Your task to perform on an android device: Go to sound settings Image 0: 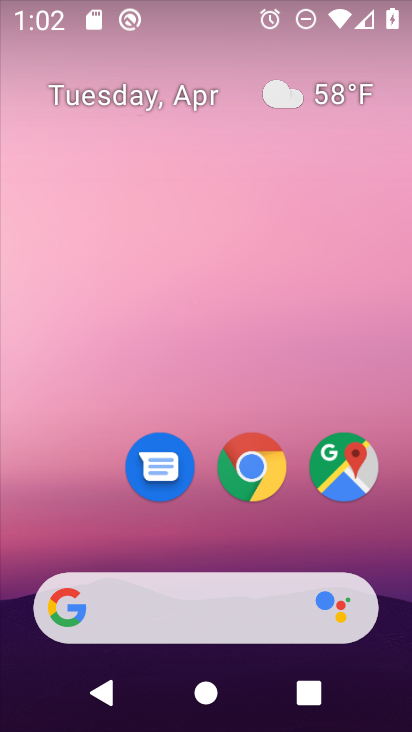
Step 0: drag from (204, 18) to (172, 702)
Your task to perform on an android device: Go to sound settings Image 1: 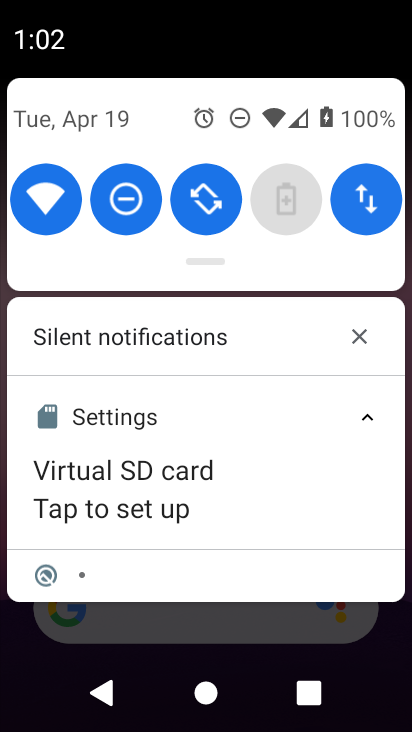
Step 1: drag from (231, 138) to (184, 717)
Your task to perform on an android device: Go to sound settings Image 2: 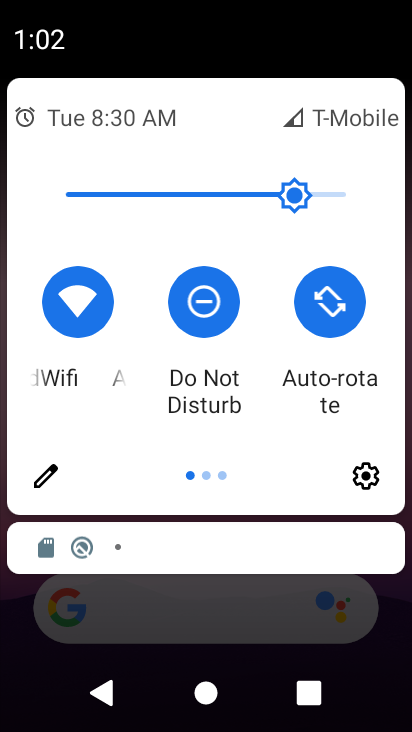
Step 2: click (366, 480)
Your task to perform on an android device: Go to sound settings Image 3: 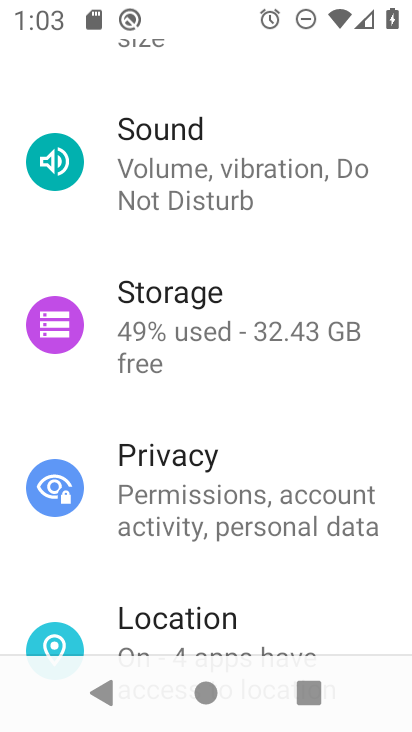
Step 3: click (223, 145)
Your task to perform on an android device: Go to sound settings Image 4: 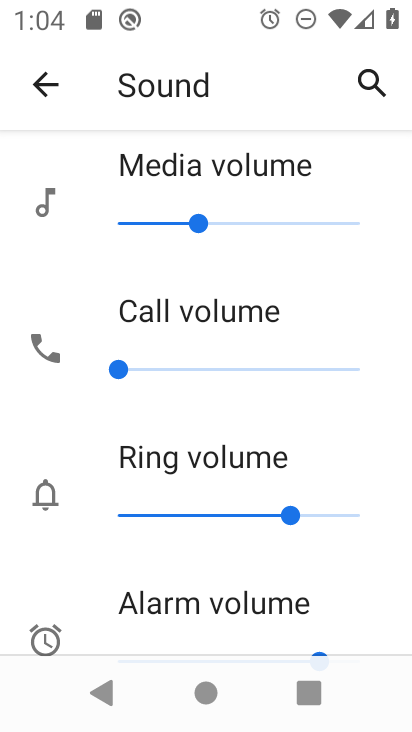
Step 4: task complete